Your task to perform on an android device: Turn on the flashlight Image 0: 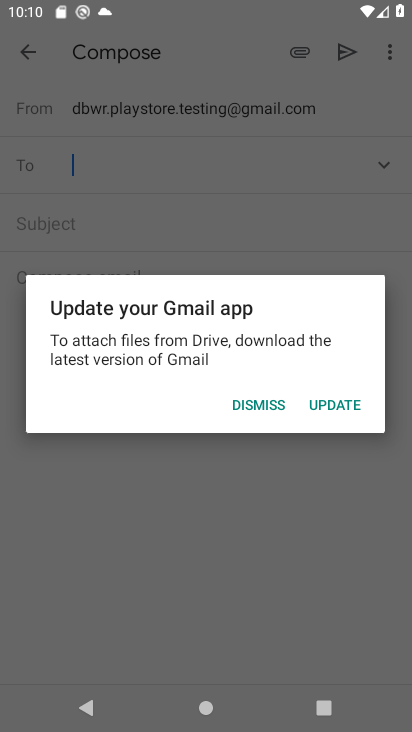
Step 0: press home button
Your task to perform on an android device: Turn on the flashlight Image 1: 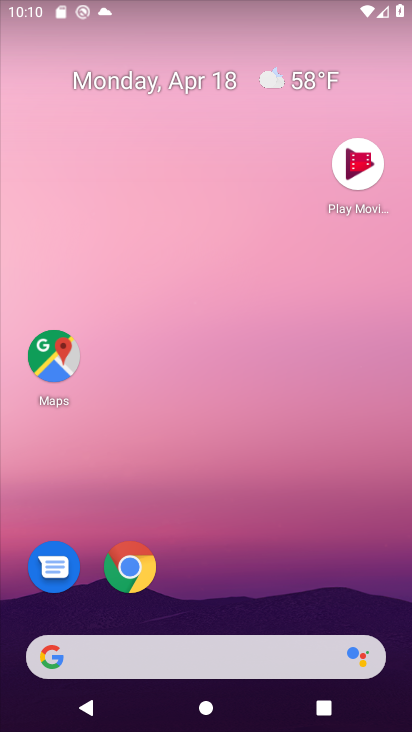
Step 1: drag from (193, 601) to (305, 57)
Your task to perform on an android device: Turn on the flashlight Image 2: 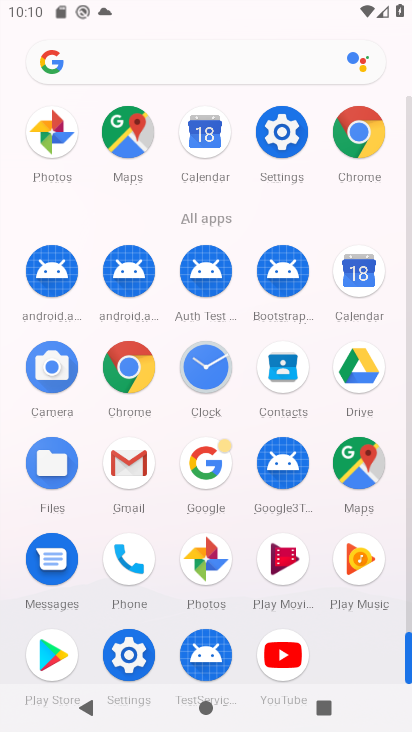
Step 2: click (126, 642)
Your task to perform on an android device: Turn on the flashlight Image 3: 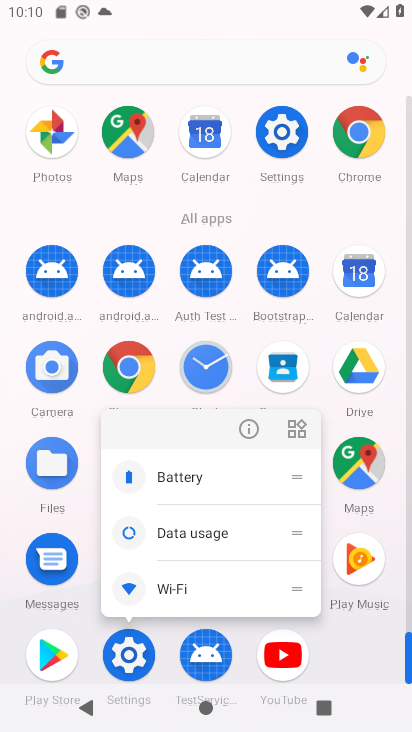
Step 3: click (254, 425)
Your task to perform on an android device: Turn on the flashlight Image 4: 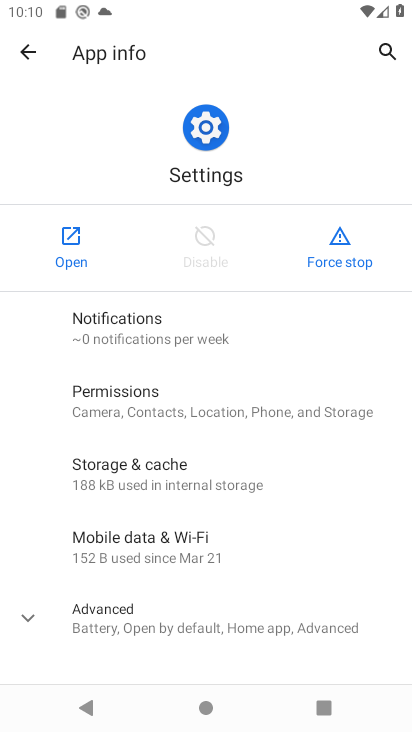
Step 4: click (80, 247)
Your task to perform on an android device: Turn on the flashlight Image 5: 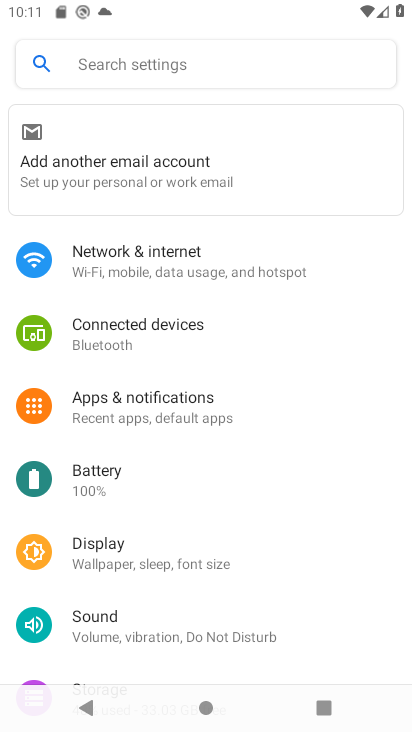
Step 5: click (237, 61)
Your task to perform on an android device: Turn on the flashlight Image 6: 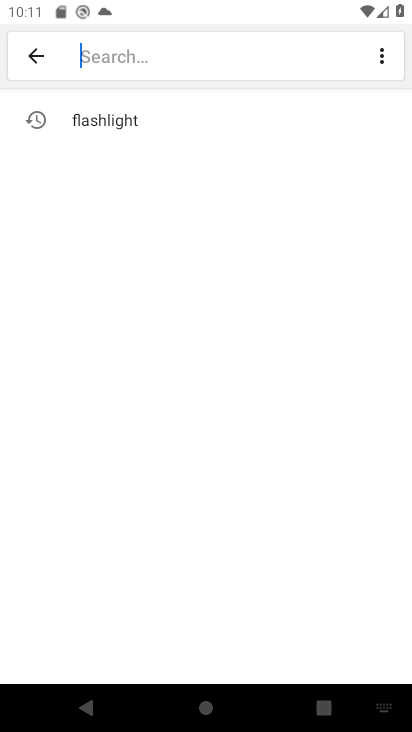
Step 6: type "flashlight"
Your task to perform on an android device: Turn on the flashlight Image 7: 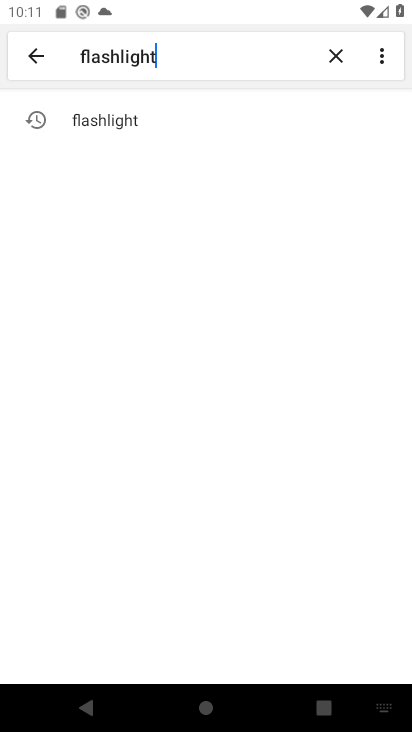
Step 7: click (160, 118)
Your task to perform on an android device: Turn on the flashlight Image 8: 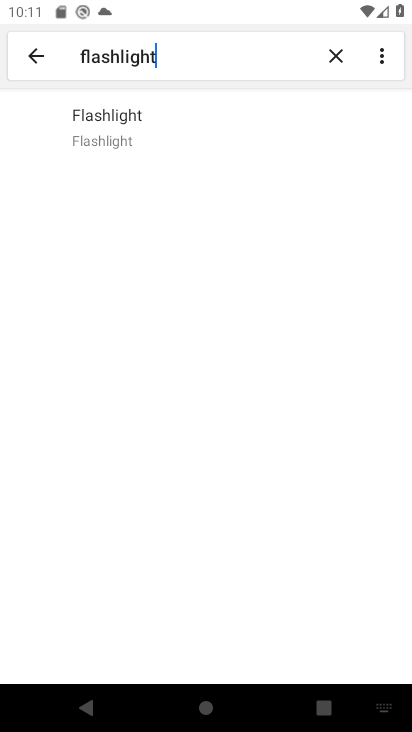
Step 8: click (137, 135)
Your task to perform on an android device: Turn on the flashlight Image 9: 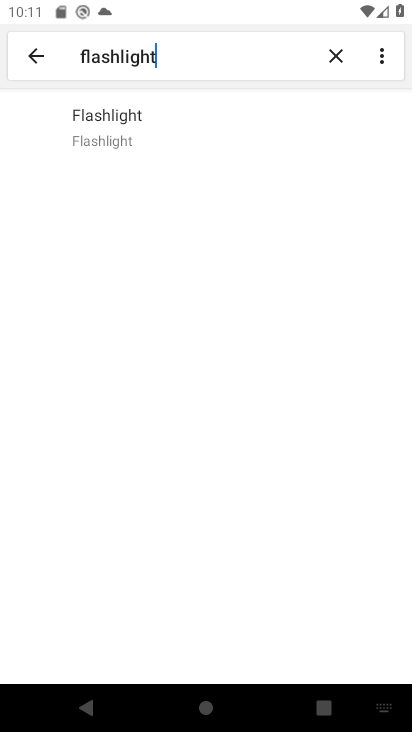
Step 9: task complete